Your task to perform on an android device: Search for seafood restaurants on Google Maps Image 0: 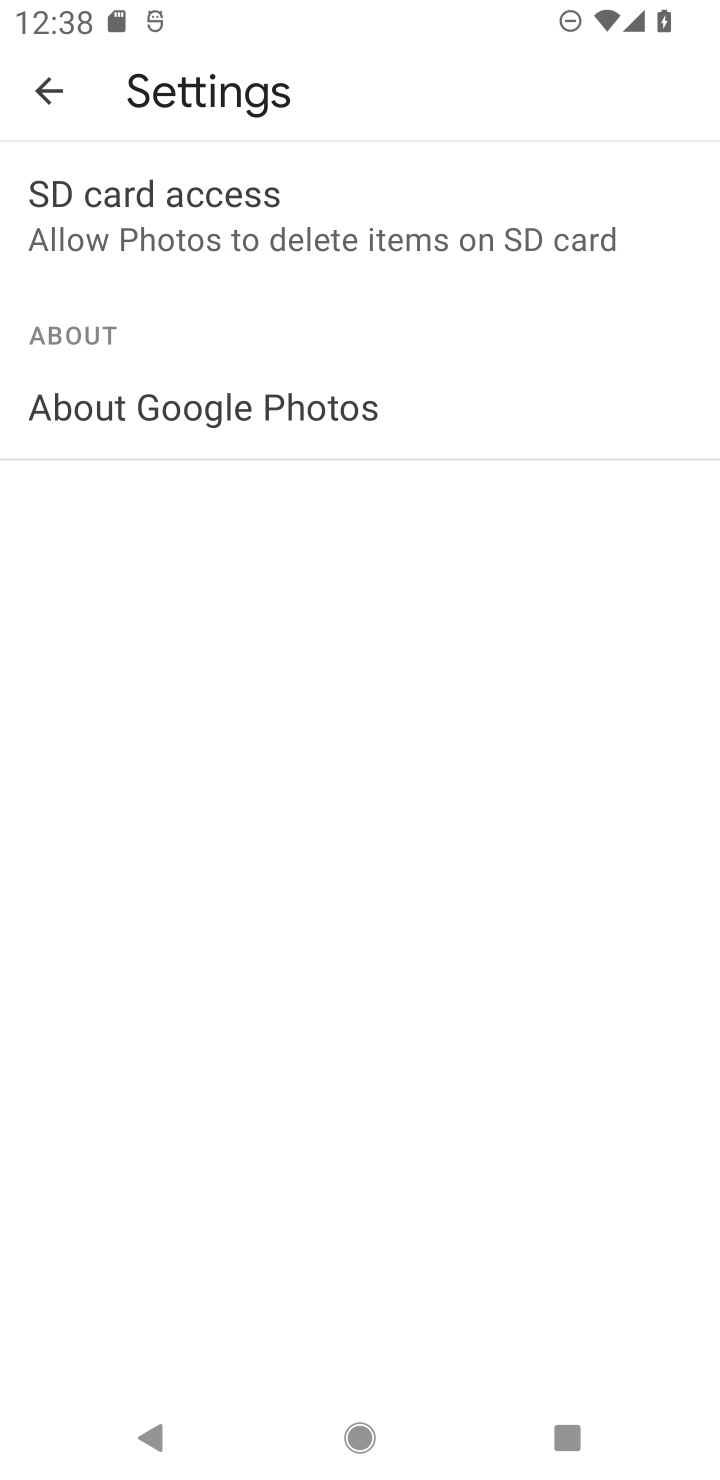
Step 0: press home button
Your task to perform on an android device: Search for seafood restaurants on Google Maps Image 1: 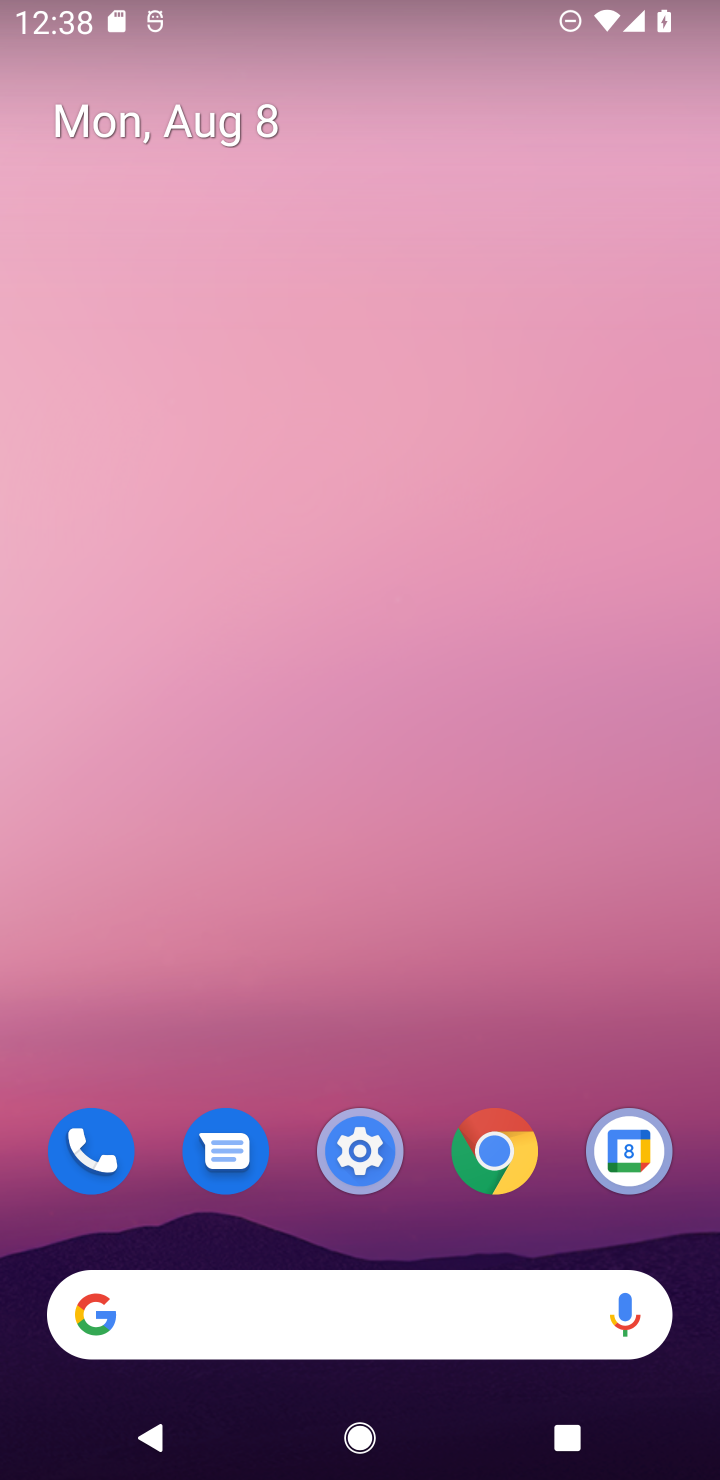
Step 1: drag from (307, 1179) to (139, 449)
Your task to perform on an android device: Search for seafood restaurants on Google Maps Image 2: 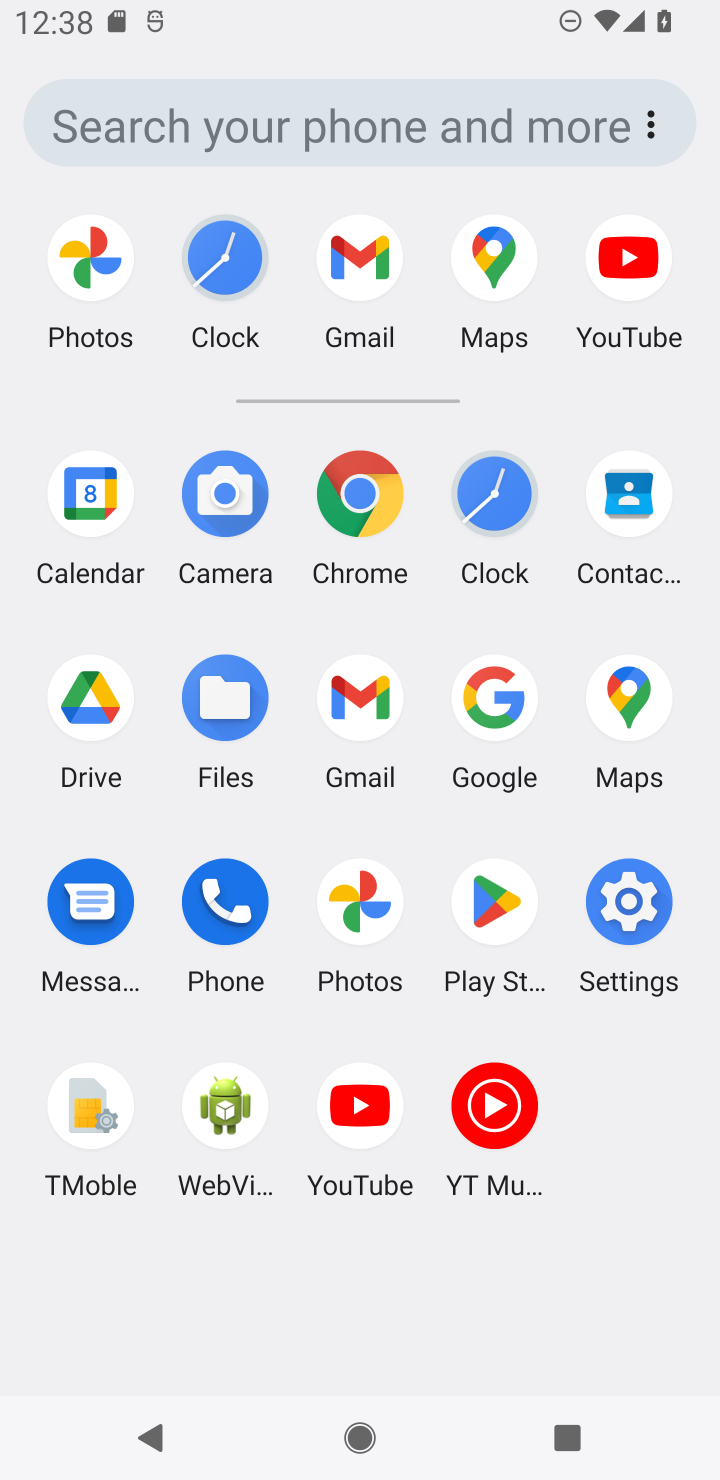
Step 2: click (624, 699)
Your task to perform on an android device: Search for seafood restaurants on Google Maps Image 3: 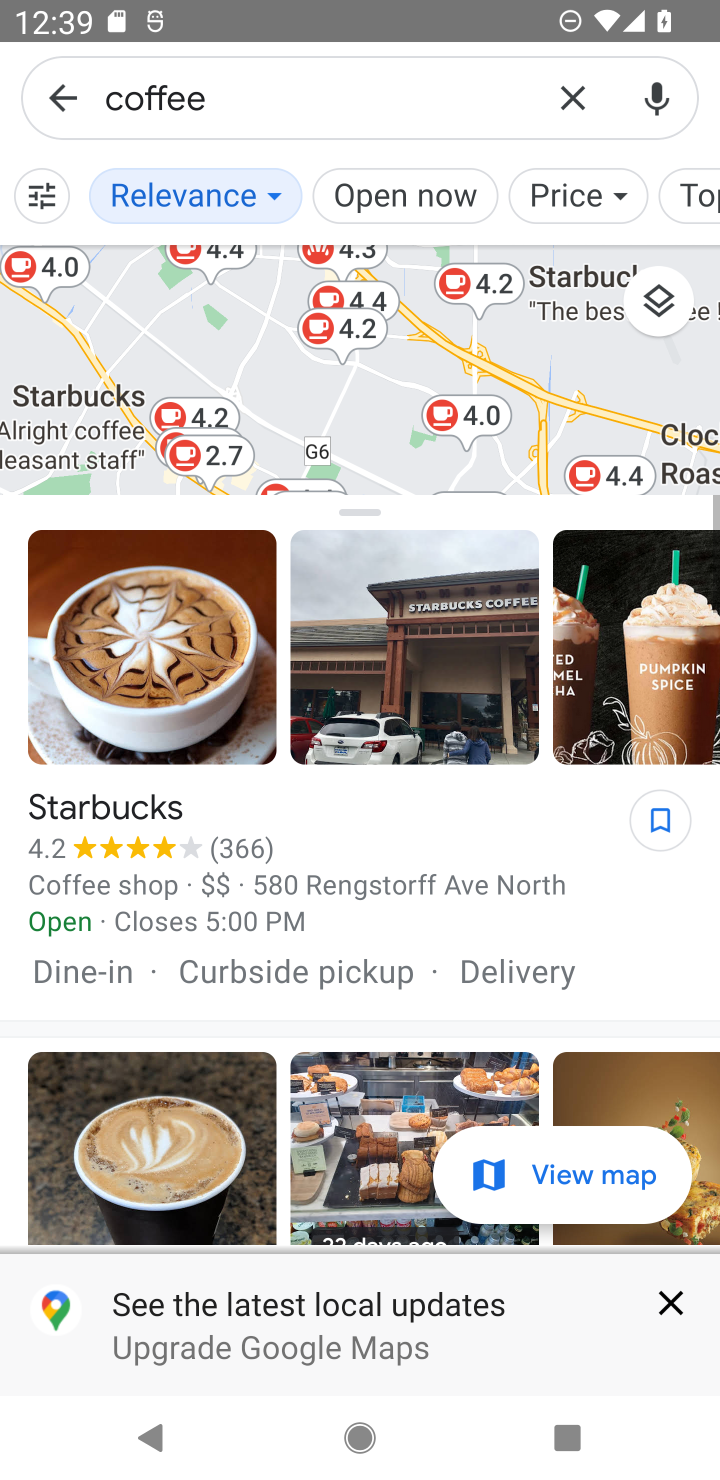
Step 3: click (285, 107)
Your task to perform on an android device: Search for seafood restaurants on Google Maps Image 4: 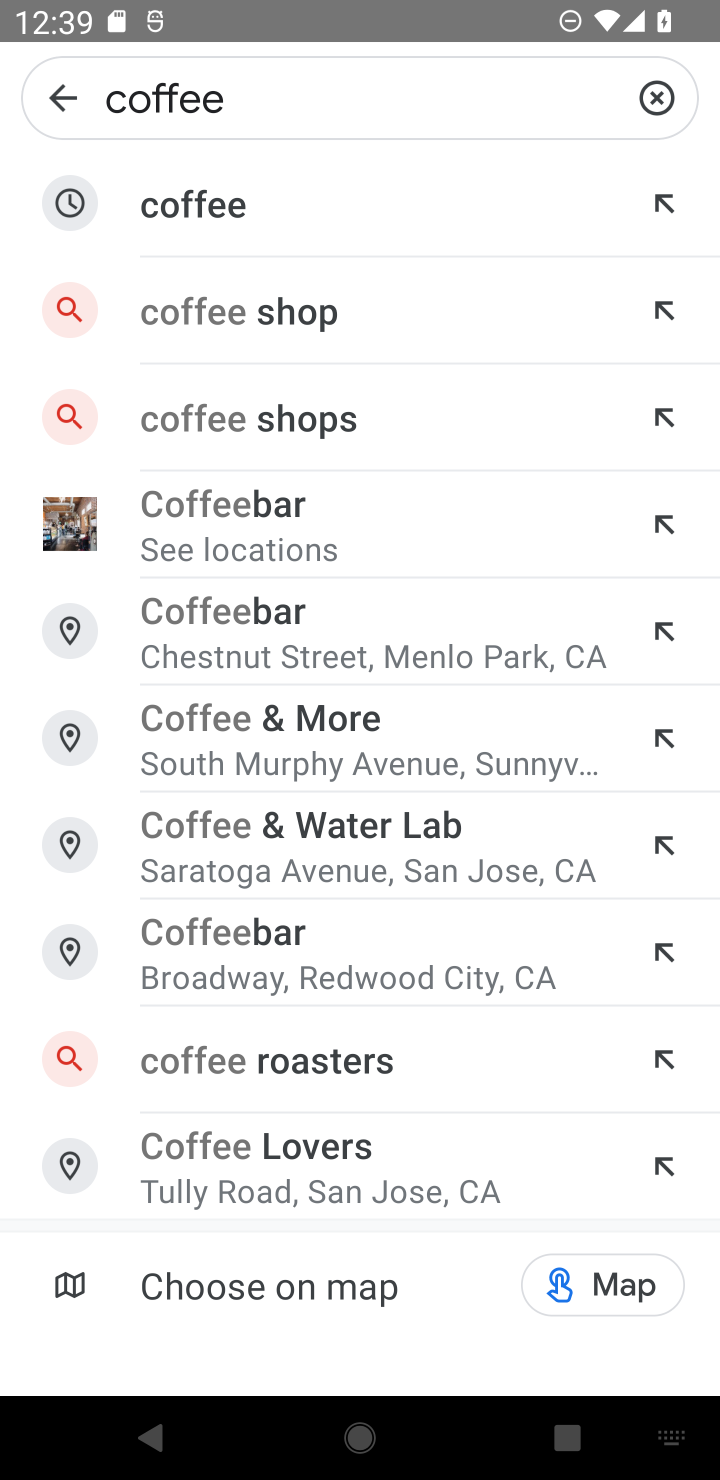
Step 4: click (648, 94)
Your task to perform on an android device: Search for seafood restaurants on Google Maps Image 5: 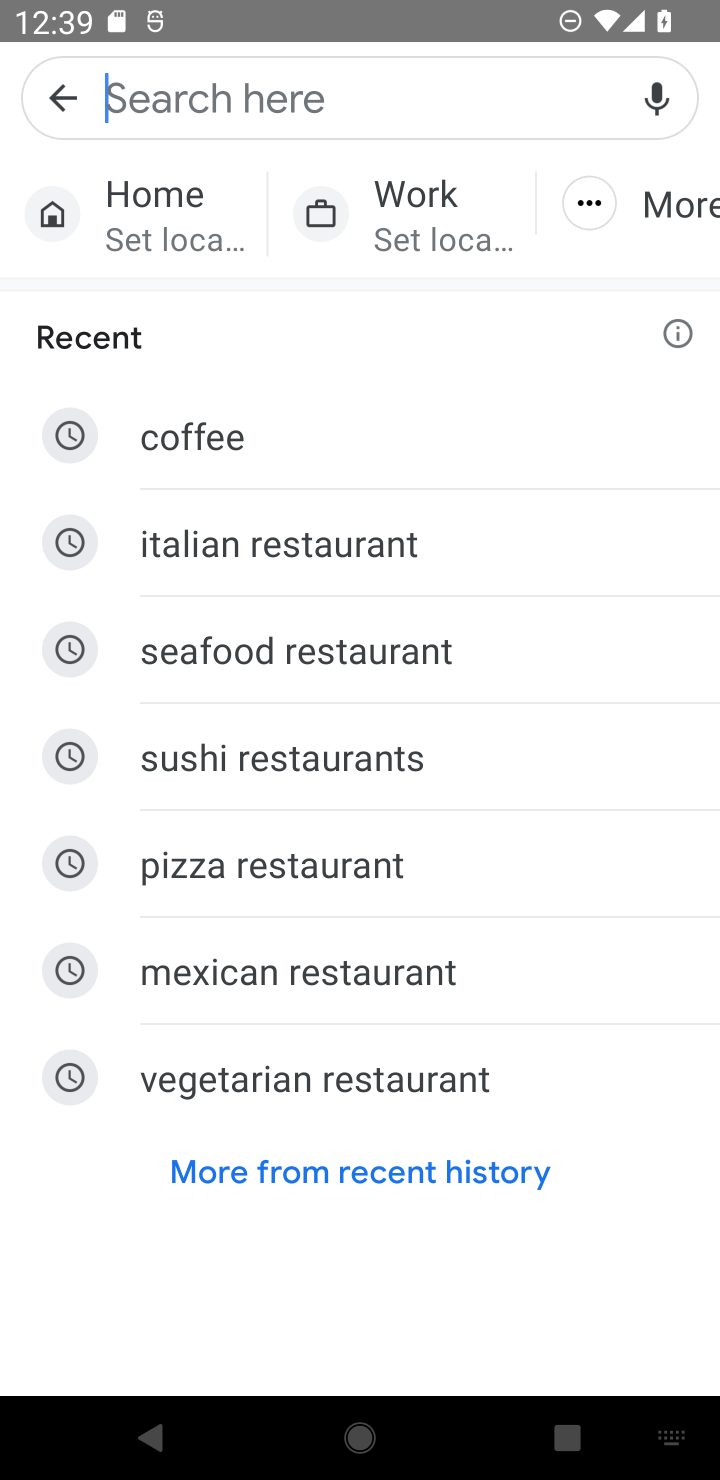
Step 5: click (291, 658)
Your task to perform on an android device: Search for seafood restaurants on Google Maps Image 6: 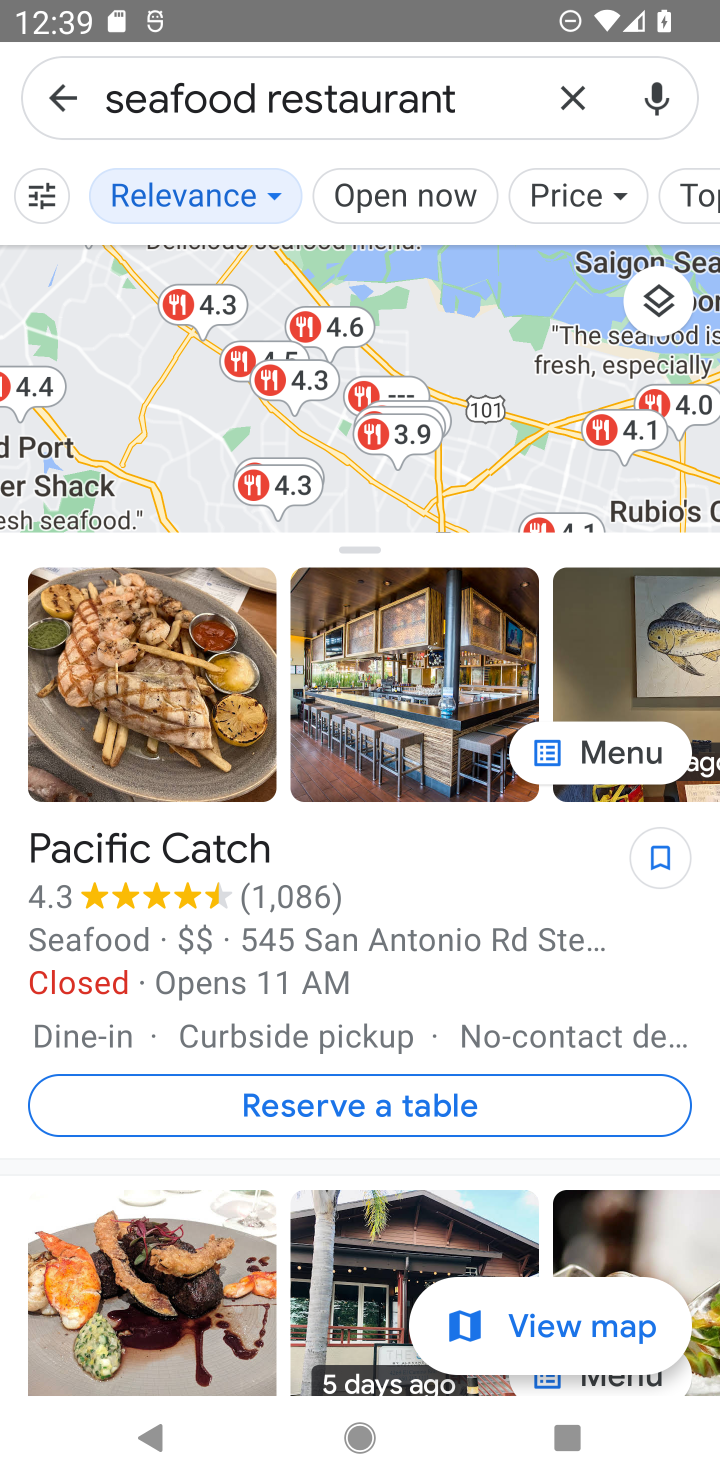
Step 6: task complete